Your task to perform on an android device: Search for sushi restaurants on Maps Image 0: 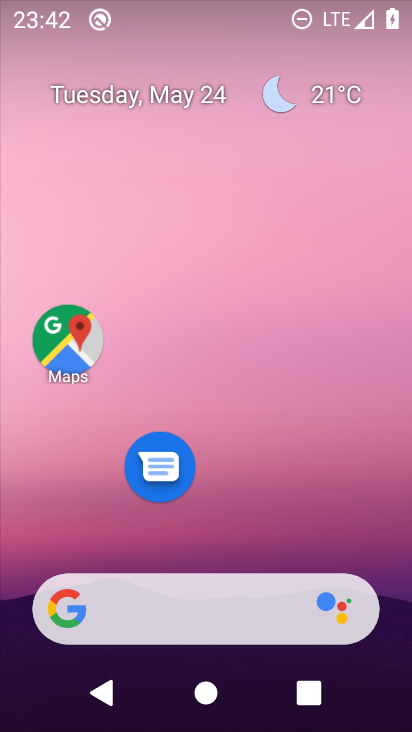
Step 0: drag from (175, 59) to (170, 14)
Your task to perform on an android device: Search for sushi restaurants on Maps Image 1: 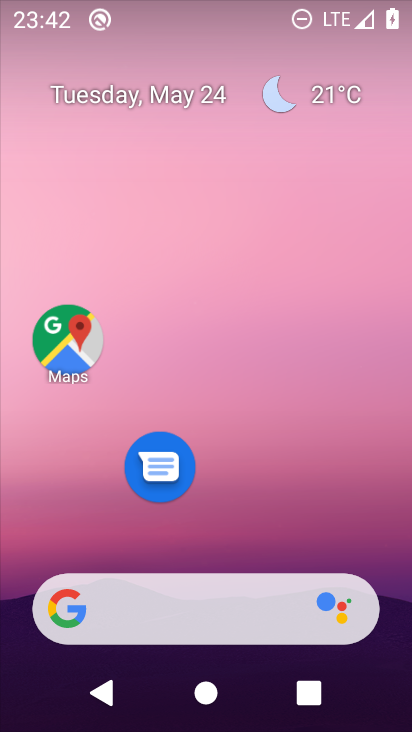
Step 1: click (201, 23)
Your task to perform on an android device: Search for sushi restaurants on Maps Image 2: 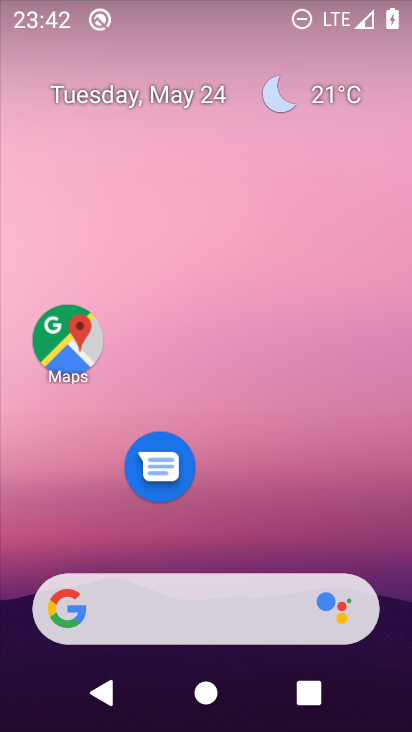
Step 2: click (74, 348)
Your task to perform on an android device: Search for sushi restaurants on Maps Image 3: 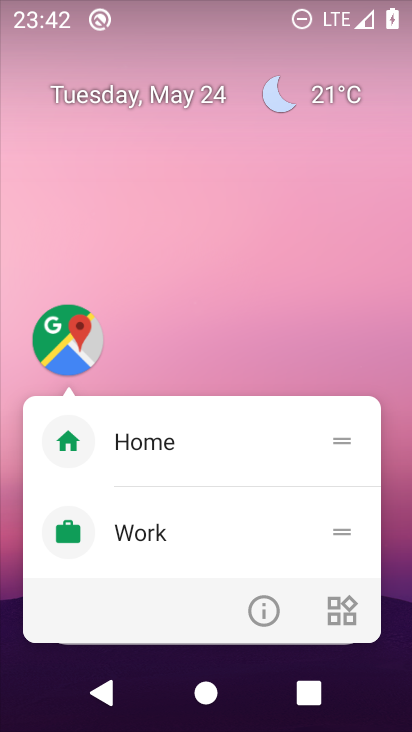
Step 3: click (272, 637)
Your task to perform on an android device: Search for sushi restaurants on Maps Image 4: 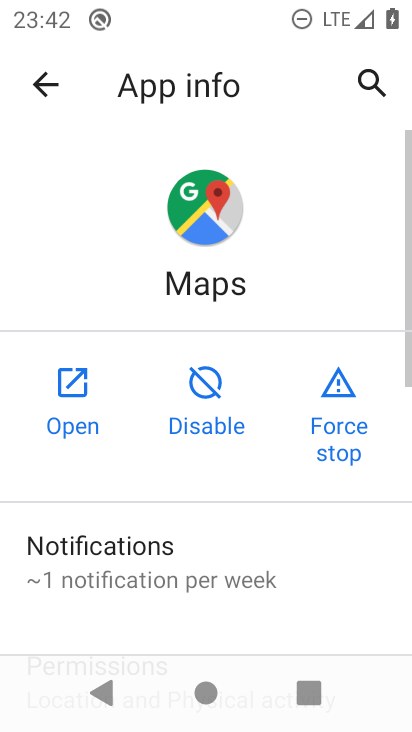
Step 4: click (62, 410)
Your task to perform on an android device: Search for sushi restaurants on Maps Image 5: 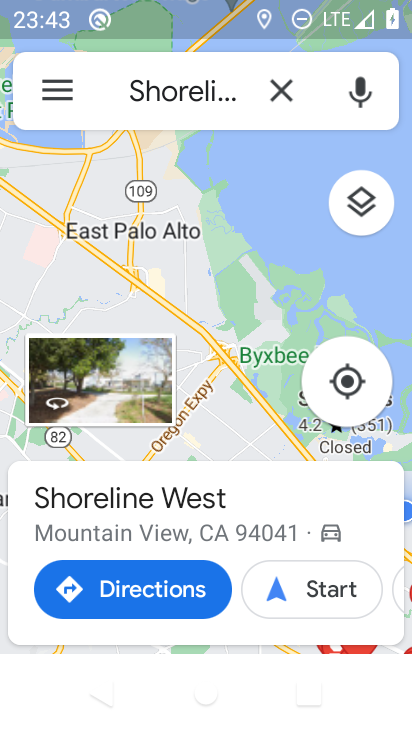
Step 5: click (281, 93)
Your task to perform on an android device: Search for sushi restaurants on Maps Image 6: 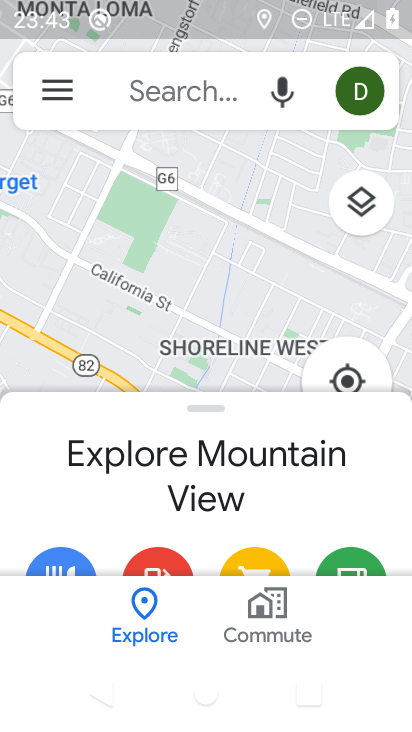
Step 6: click (146, 112)
Your task to perform on an android device: Search for sushi restaurants on Maps Image 7: 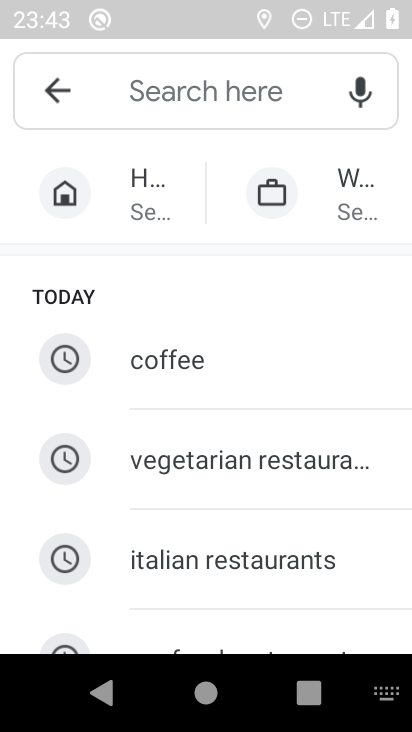
Step 7: drag from (282, 555) to (348, 237)
Your task to perform on an android device: Search for sushi restaurants on Maps Image 8: 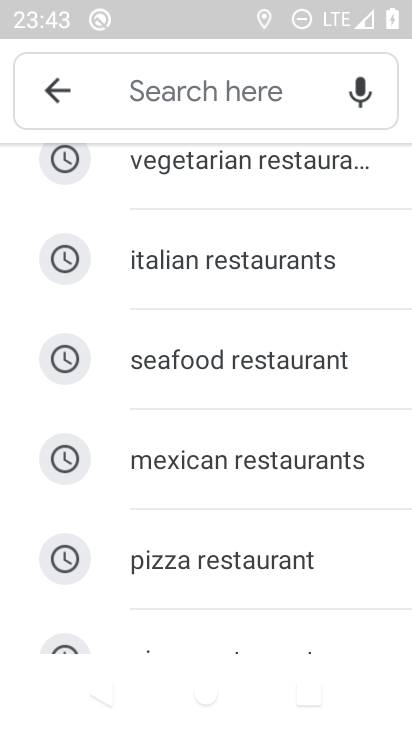
Step 8: drag from (200, 583) to (252, 177)
Your task to perform on an android device: Search for sushi restaurants on Maps Image 9: 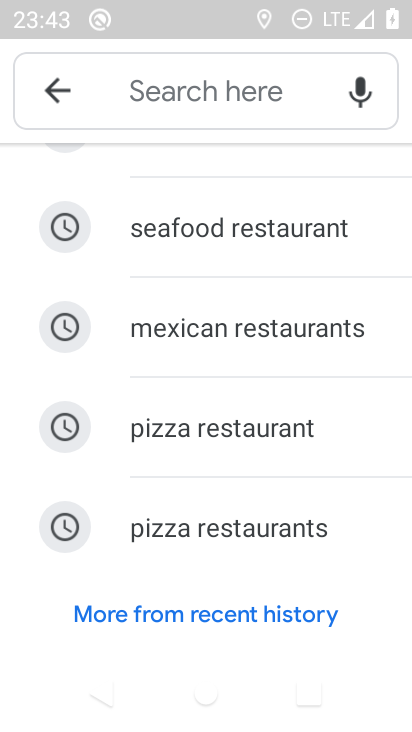
Step 9: drag from (167, 209) to (267, 638)
Your task to perform on an android device: Search for sushi restaurants on Maps Image 10: 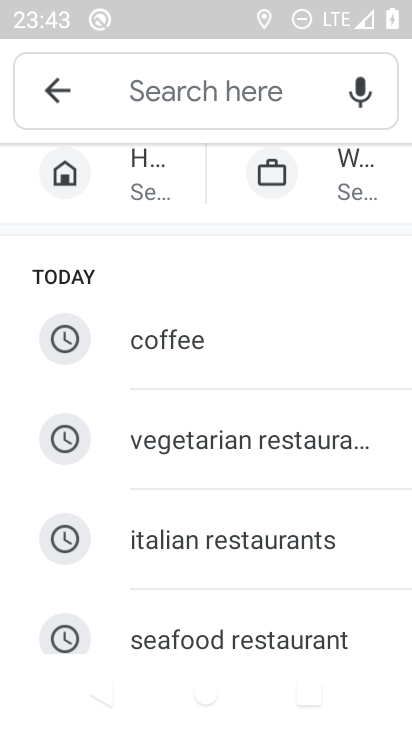
Step 10: click (187, 72)
Your task to perform on an android device: Search for sushi restaurants on Maps Image 11: 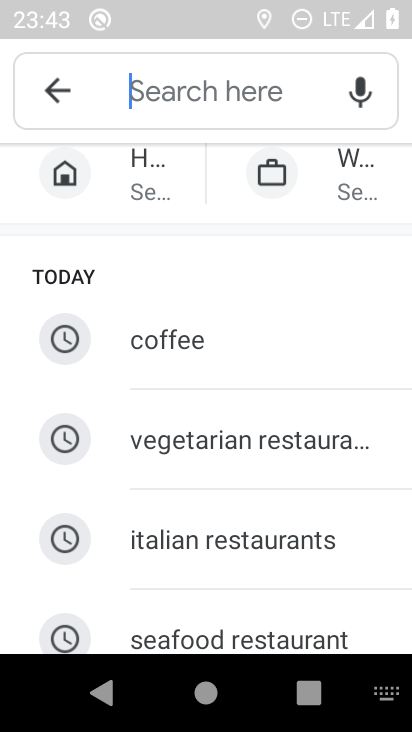
Step 11: drag from (184, 577) to (265, 206)
Your task to perform on an android device: Search for sushi restaurants on Maps Image 12: 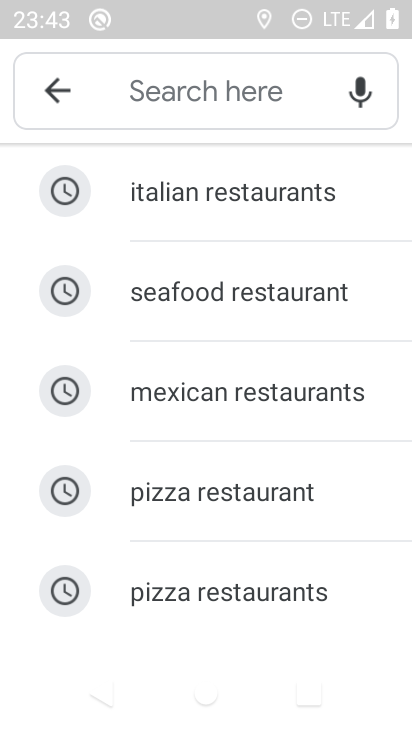
Step 12: drag from (152, 543) to (218, 256)
Your task to perform on an android device: Search for sushi restaurants on Maps Image 13: 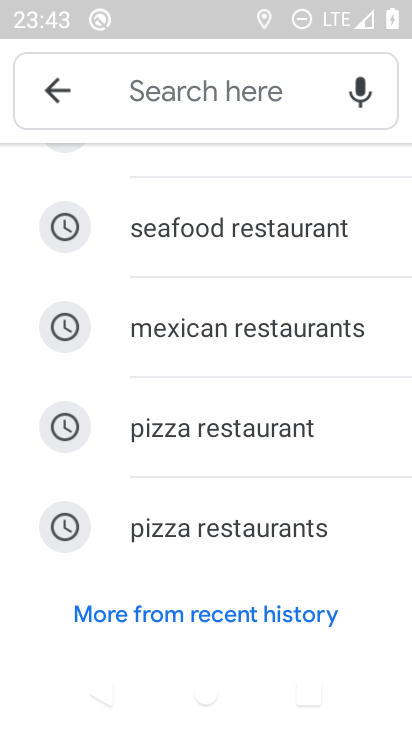
Step 13: click (111, 59)
Your task to perform on an android device: Search for sushi restaurants on Maps Image 14: 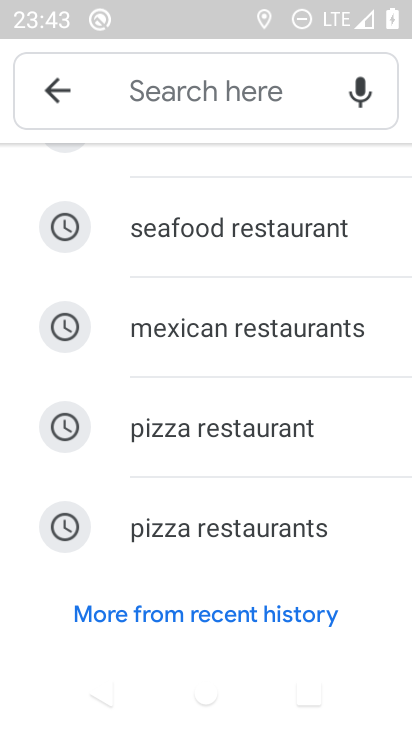
Step 14: click (132, 71)
Your task to perform on an android device: Search for sushi restaurants on Maps Image 15: 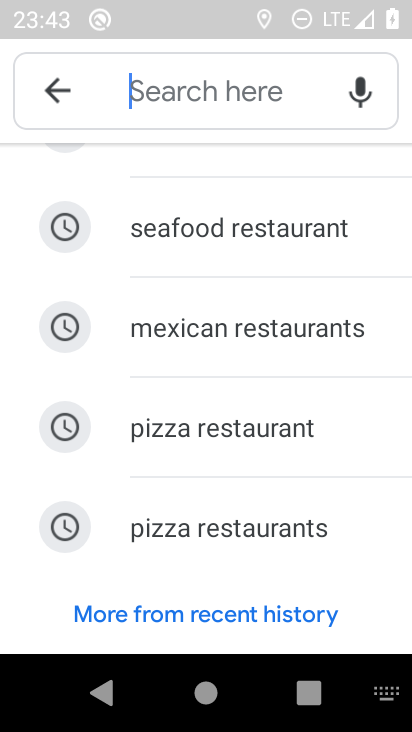
Step 15: type "sushi restaurants"
Your task to perform on an android device: Search for sushi restaurants on Maps Image 16: 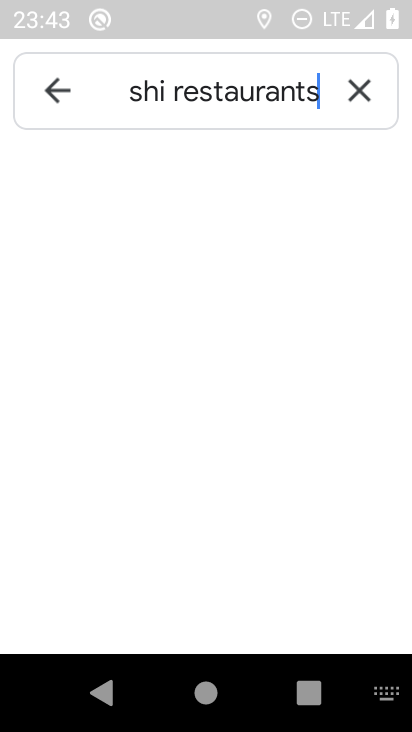
Step 16: type ""
Your task to perform on an android device: Search for sushi restaurants on Maps Image 17: 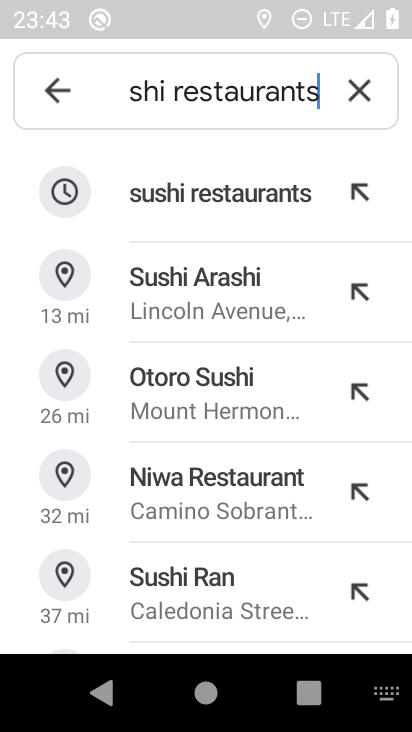
Step 17: click (173, 199)
Your task to perform on an android device: Search for sushi restaurants on Maps Image 18: 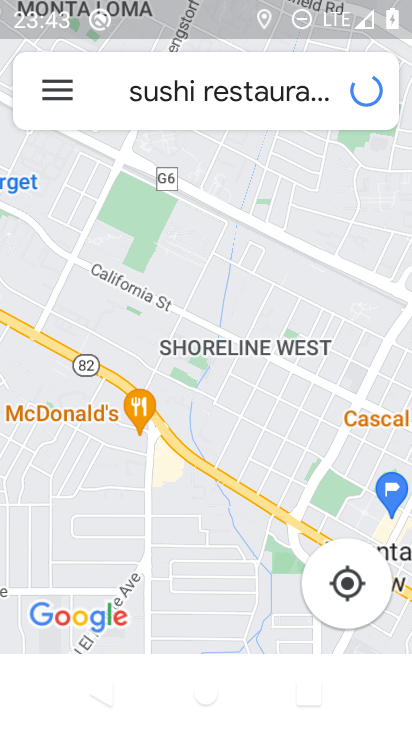
Step 18: task complete